Your task to perform on an android device: turn off priority inbox in the gmail app Image 0: 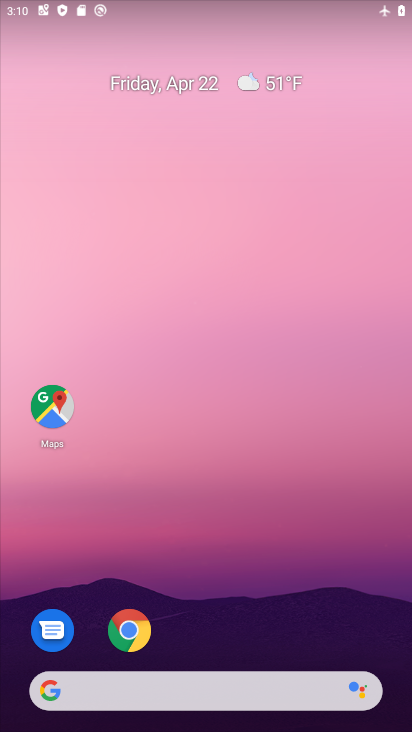
Step 0: drag from (360, 535) to (223, 0)
Your task to perform on an android device: turn off priority inbox in the gmail app Image 1: 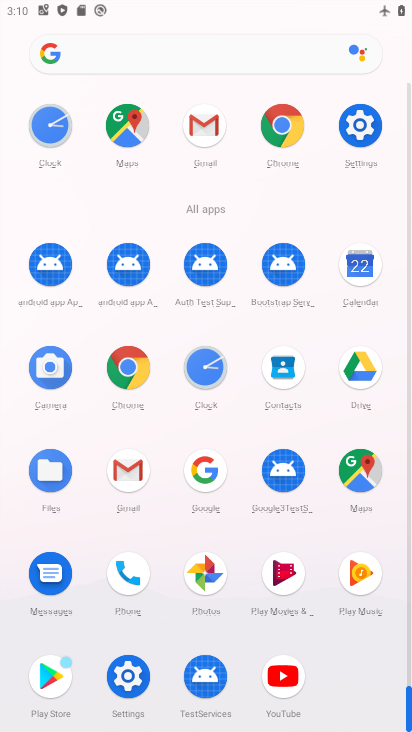
Step 1: drag from (5, 537) to (18, 327)
Your task to perform on an android device: turn off priority inbox in the gmail app Image 2: 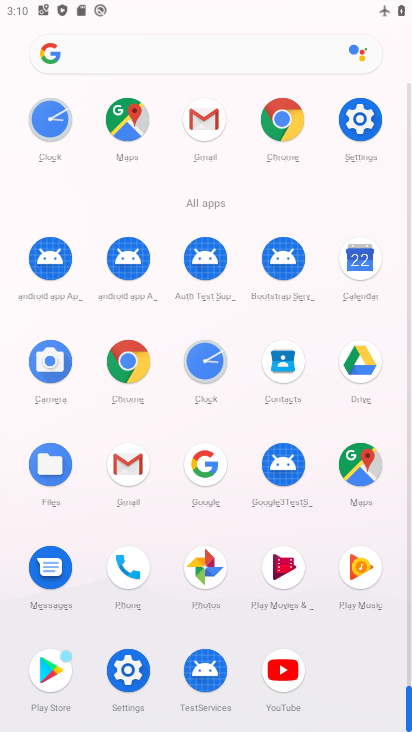
Step 2: click (200, 120)
Your task to perform on an android device: turn off priority inbox in the gmail app Image 3: 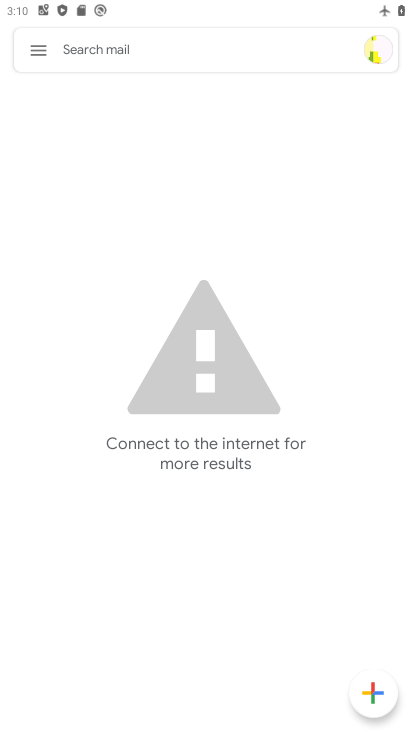
Step 3: click (45, 51)
Your task to perform on an android device: turn off priority inbox in the gmail app Image 4: 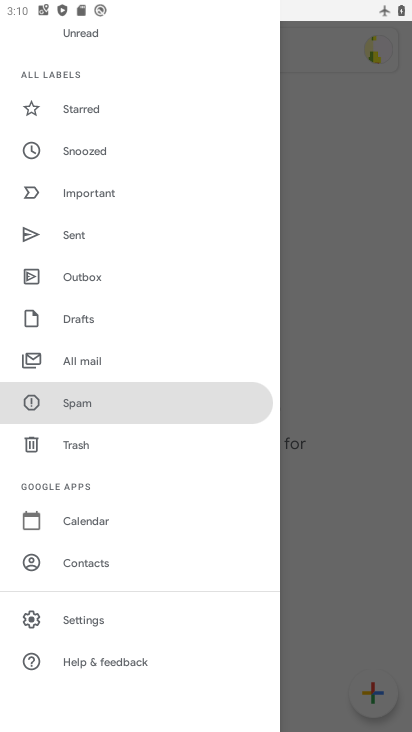
Step 4: click (98, 609)
Your task to perform on an android device: turn off priority inbox in the gmail app Image 5: 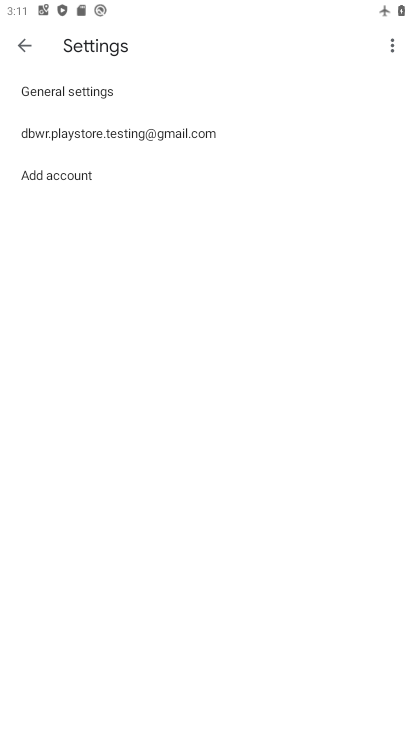
Step 5: click (134, 125)
Your task to perform on an android device: turn off priority inbox in the gmail app Image 6: 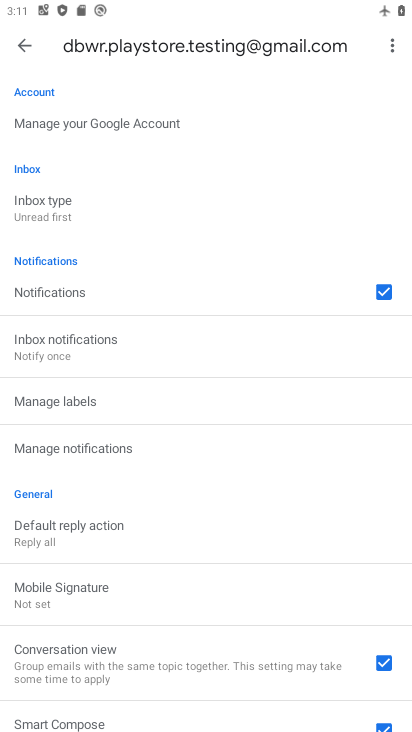
Step 6: click (87, 213)
Your task to perform on an android device: turn off priority inbox in the gmail app Image 7: 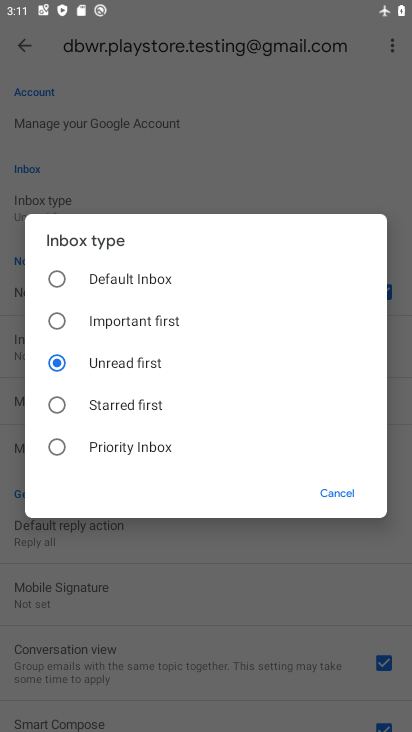
Step 7: click (103, 369)
Your task to perform on an android device: turn off priority inbox in the gmail app Image 8: 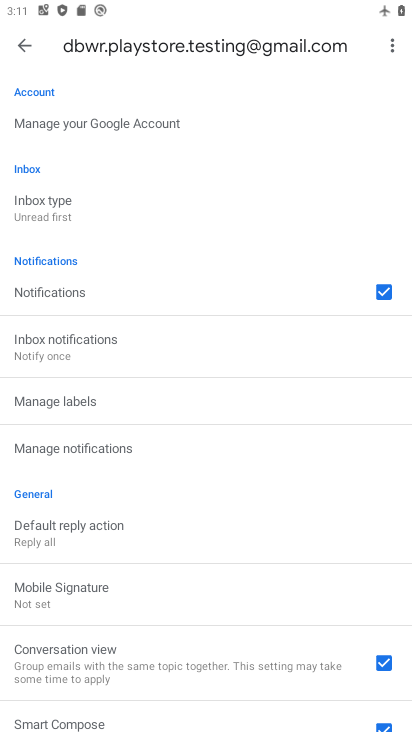
Step 8: task complete